Your task to perform on an android device: find photos in the google photos app Image 0: 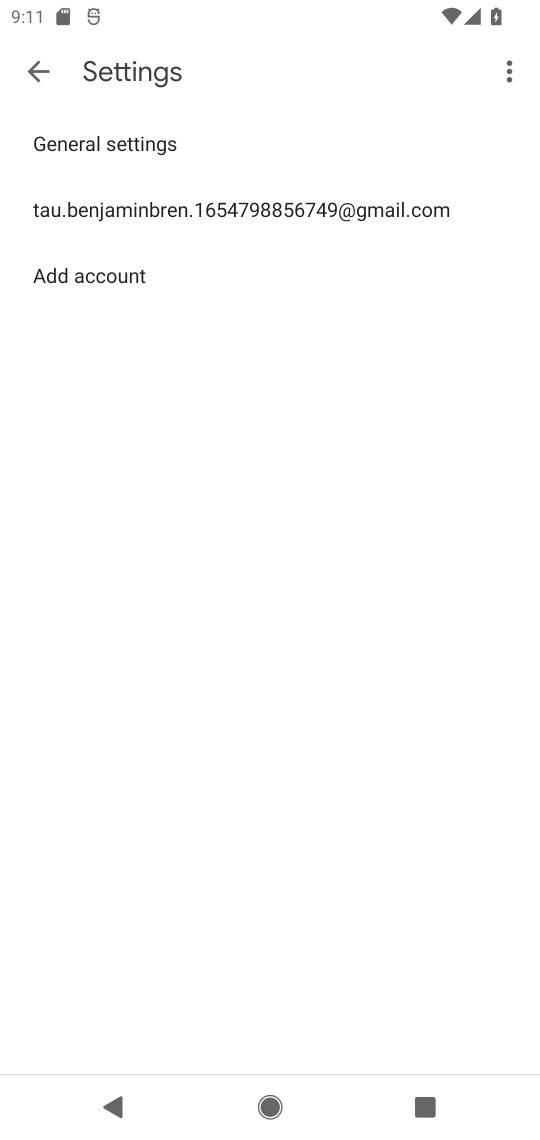
Step 0: press home button
Your task to perform on an android device: find photos in the google photos app Image 1: 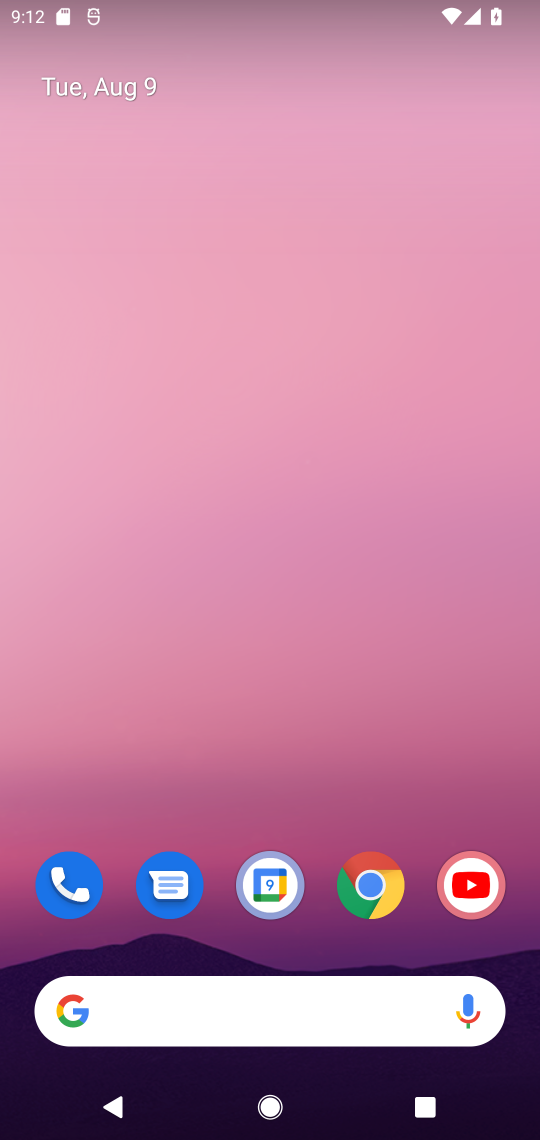
Step 1: drag from (269, 996) to (199, 38)
Your task to perform on an android device: find photos in the google photos app Image 2: 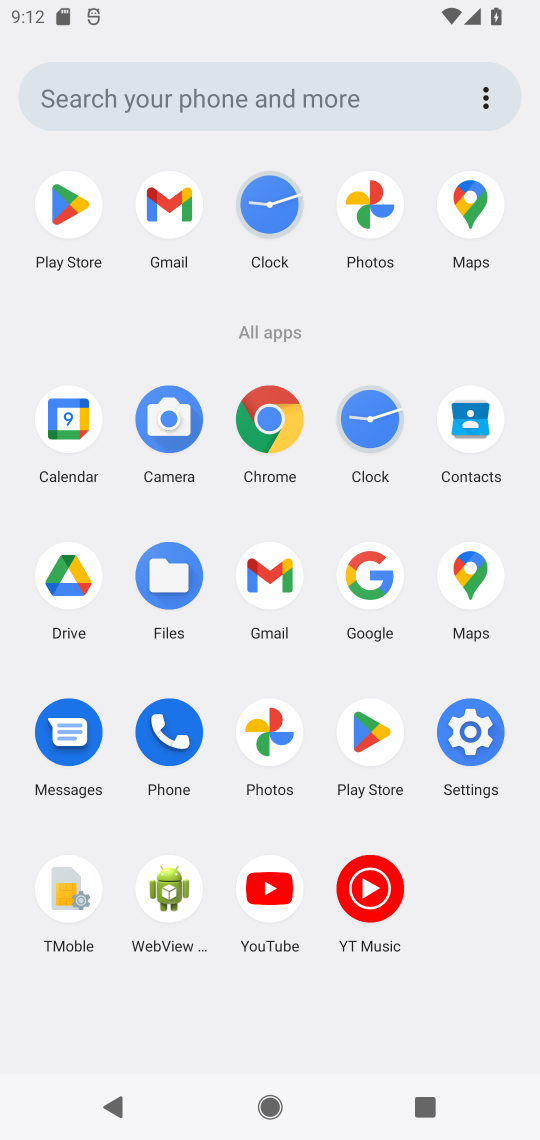
Step 2: click (274, 732)
Your task to perform on an android device: find photos in the google photos app Image 3: 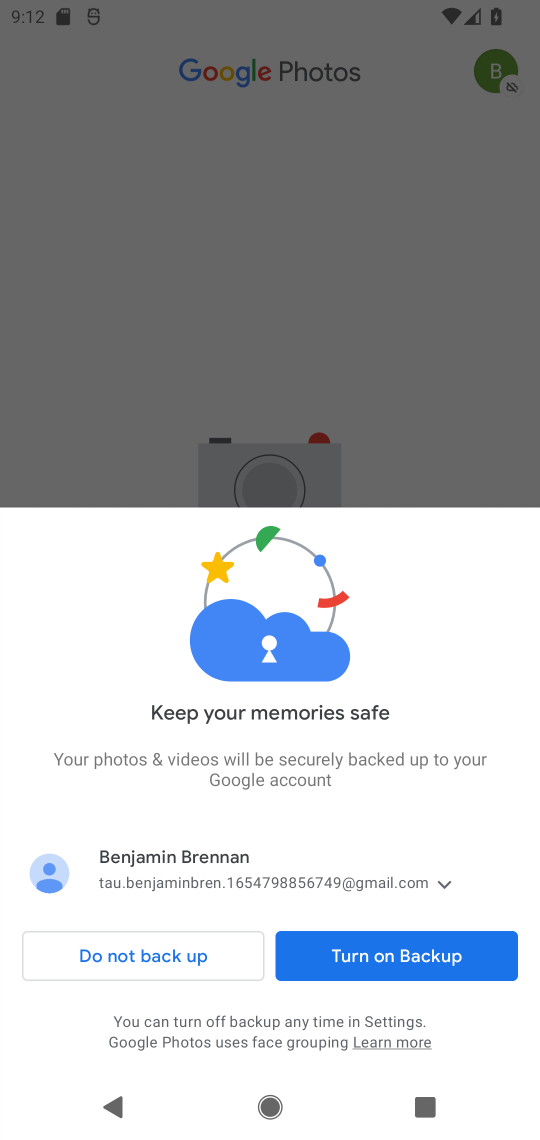
Step 3: click (363, 977)
Your task to perform on an android device: find photos in the google photos app Image 4: 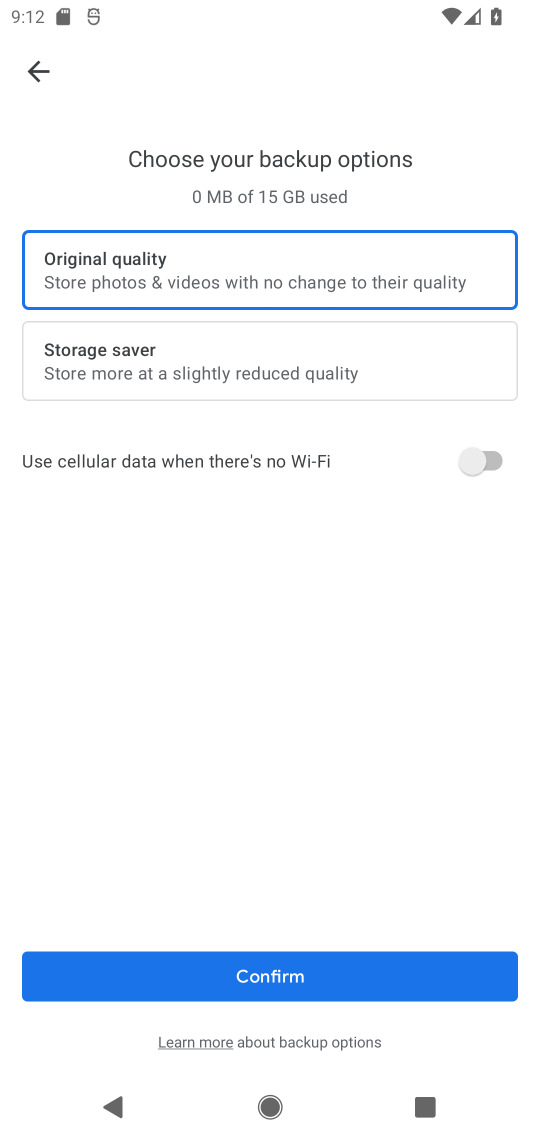
Step 4: drag from (363, 977) to (301, 977)
Your task to perform on an android device: find photos in the google photos app Image 5: 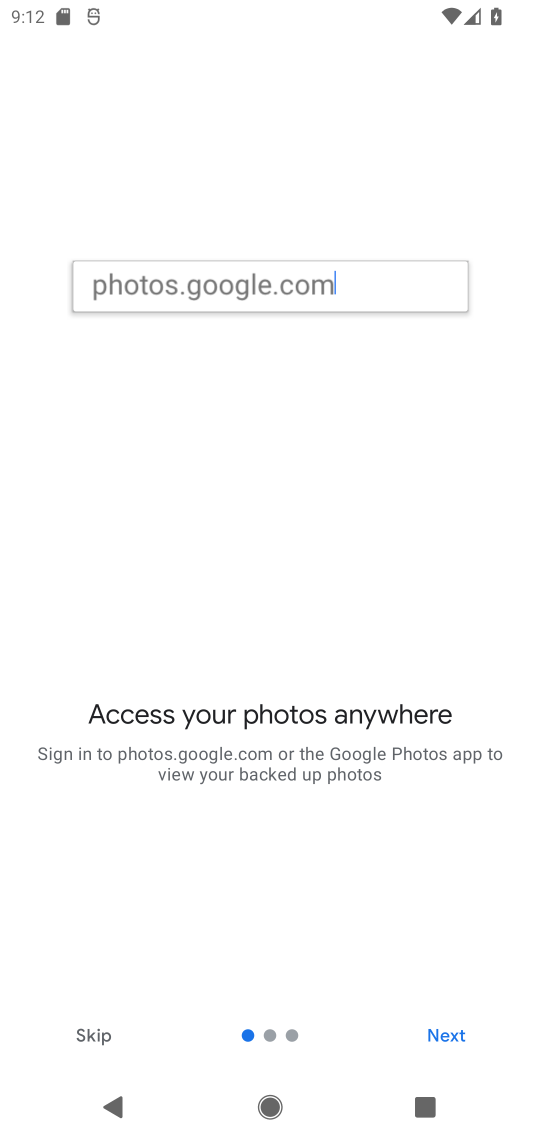
Step 5: click (98, 1031)
Your task to perform on an android device: find photos in the google photos app Image 6: 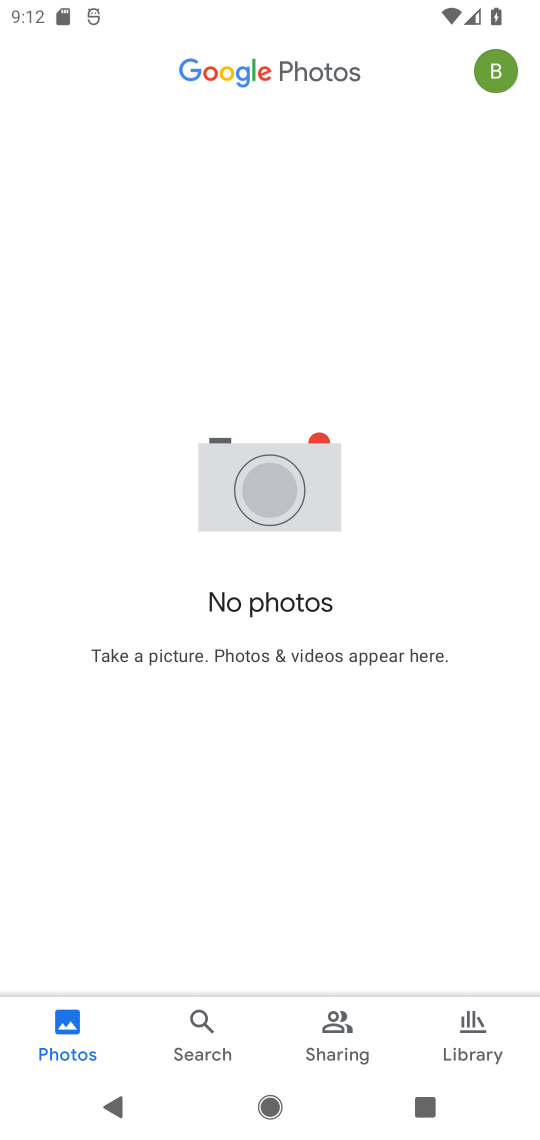
Step 6: task complete